Your task to perform on an android device: Open settings Image 0: 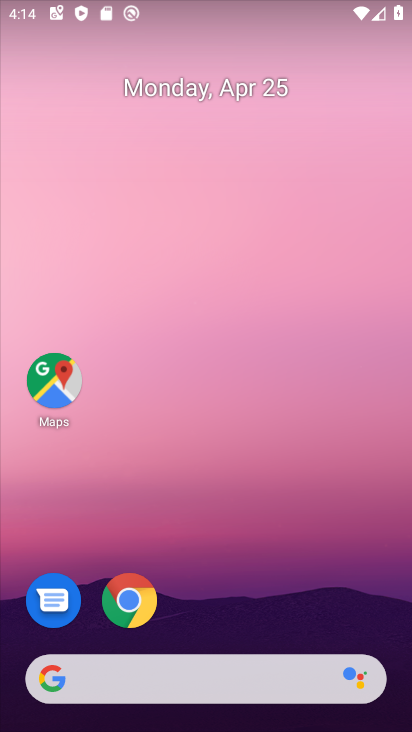
Step 0: drag from (265, 586) to (254, 17)
Your task to perform on an android device: Open settings Image 1: 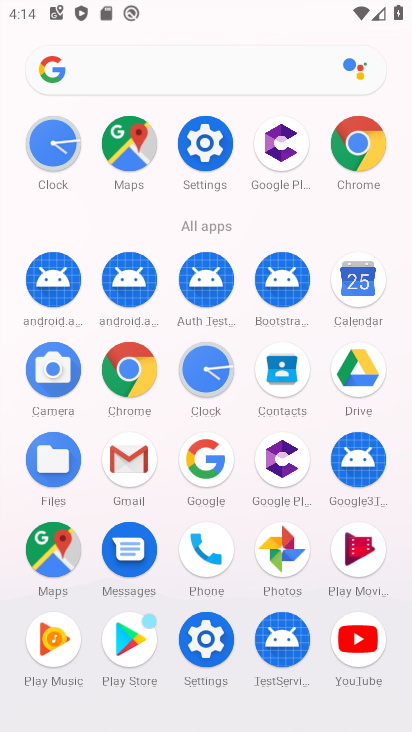
Step 1: click (202, 138)
Your task to perform on an android device: Open settings Image 2: 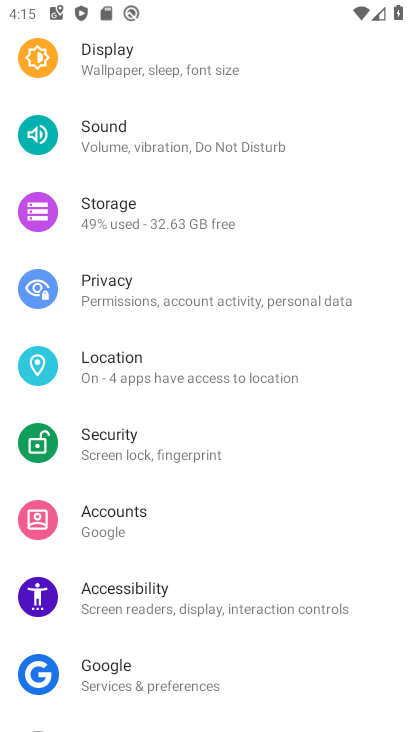
Step 2: task complete